Your task to perform on an android device: check the backup settings in the google photos Image 0: 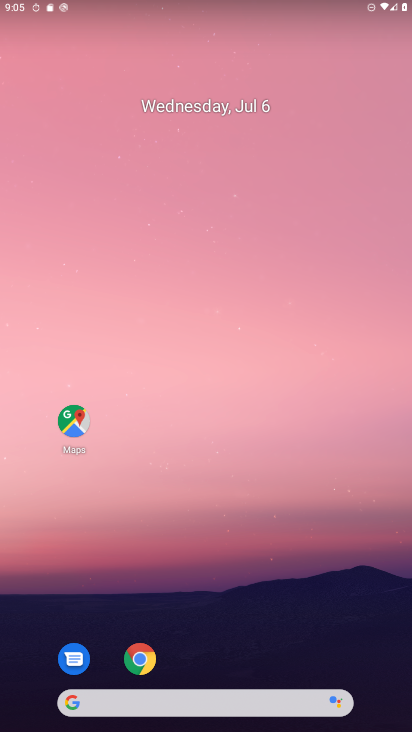
Step 0: drag from (355, 650) to (335, 276)
Your task to perform on an android device: check the backup settings in the google photos Image 1: 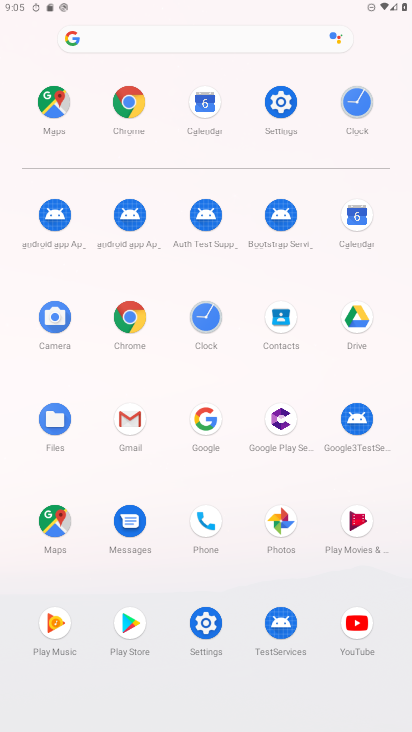
Step 1: click (281, 522)
Your task to perform on an android device: check the backup settings in the google photos Image 2: 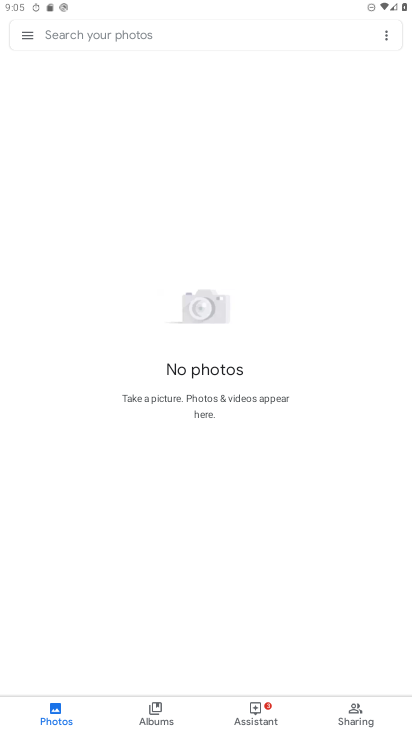
Step 2: click (29, 36)
Your task to perform on an android device: check the backup settings in the google photos Image 3: 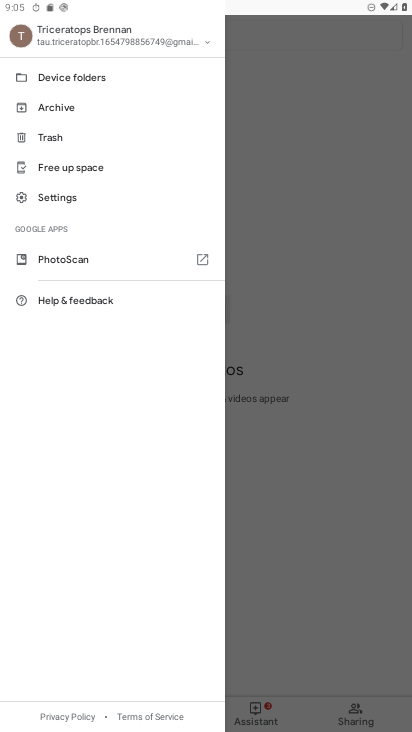
Step 3: click (78, 201)
Your task to perform on an android device: check the backup settings in the google photos Image 4: 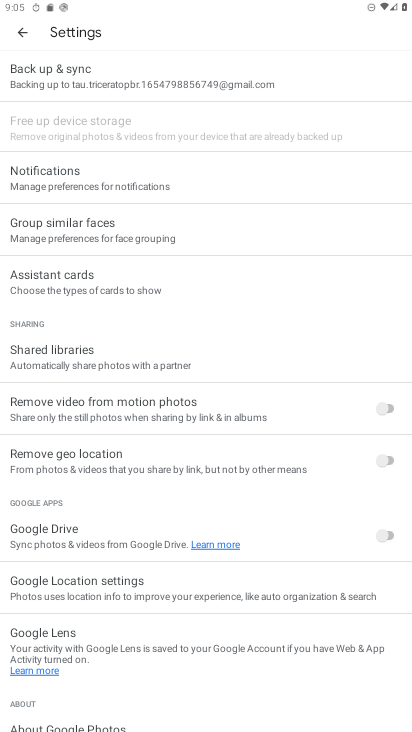
Step 4: click (165, 81)
Your task to perform on an android device: check the backup settings in the google photos Image 5: 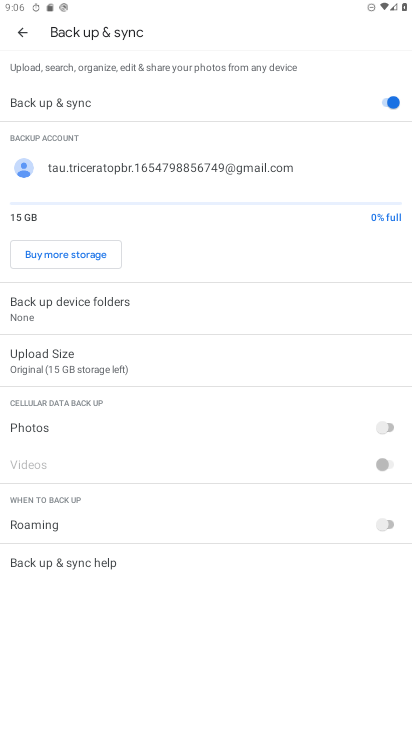
Step 5: task complete